Your task to perform on an android device: open app "Microsoft Excel" Image 0: 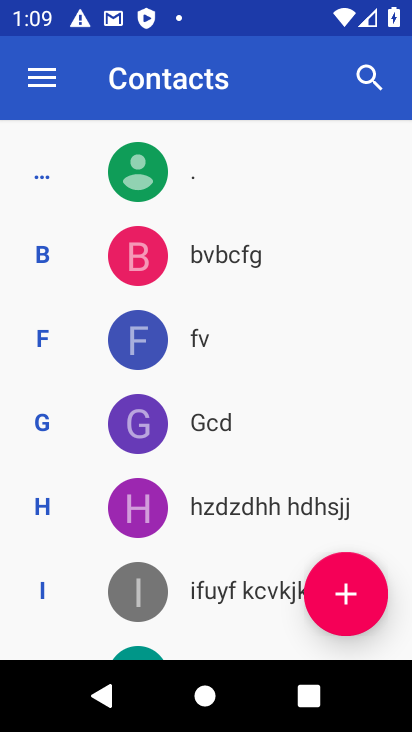
Step 0: press home button
Your task to perform on an android device: open app "Microsoft Excel" Image 1: 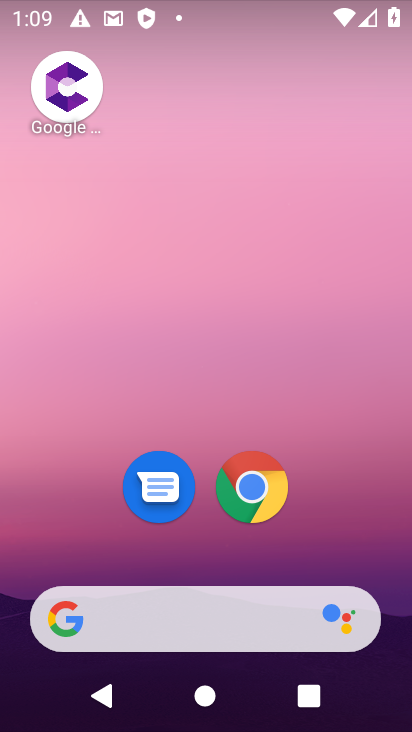
Step 1: drag from (212, 545) to (203, 58)
Your task to perform on an android device: open app "Microsoft Excel" Image 2: 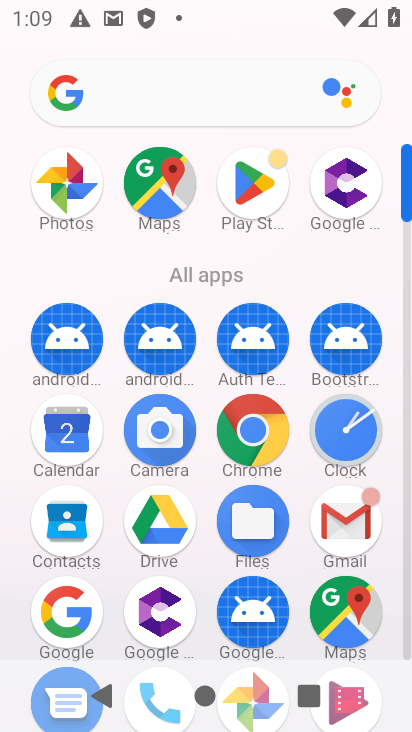
Step 2: click (248, 197)
Your task to perform on an android device: open app "Microsoft Excel" Image 3: 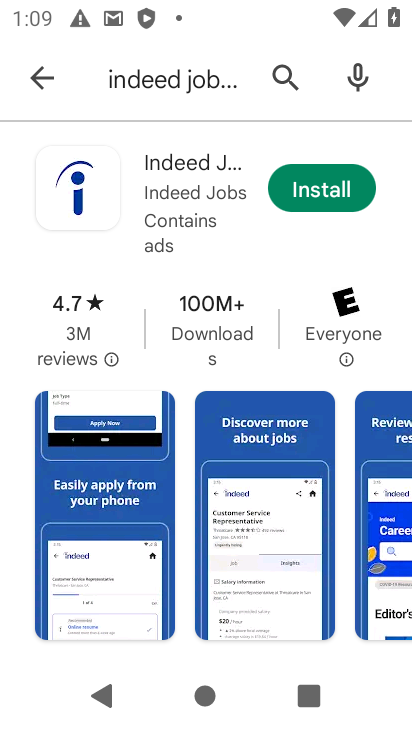
Step 3: click (287, 80)
Your task to perform on an android device: open app "Microsoft Excel" Image 4: 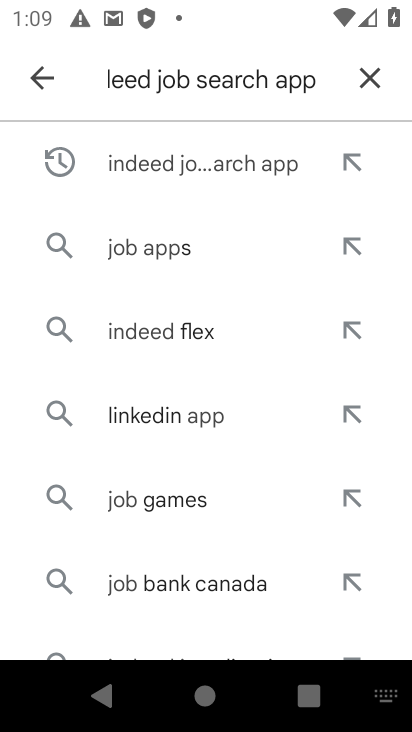
Step 4: click (376, 70)
Your task to perform on an android device: open app "Microsoft Excel" Image 5: 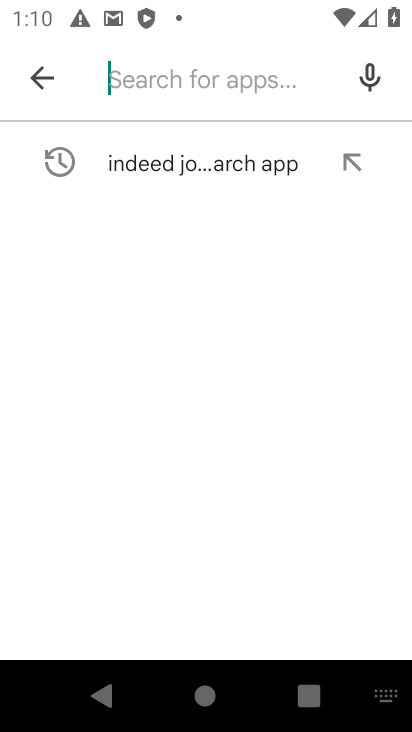
Step 5: type "Microsoft Excel"
Your task to perform on an android device: open app "Microsoft Excel" Image 6: 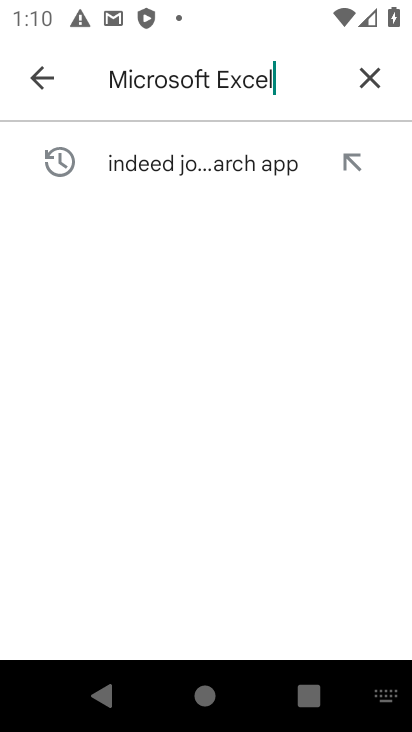
Step 6: type ""
Your task to perform on an android device: open app "Microsoft Excel" Image 7: 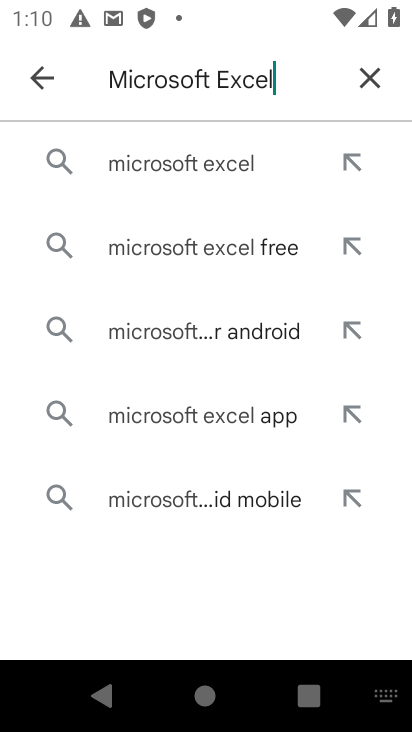
Step 7: click (185, 153)
Your task to perform on an android device: open app "Microsoft Excel" Image 8: 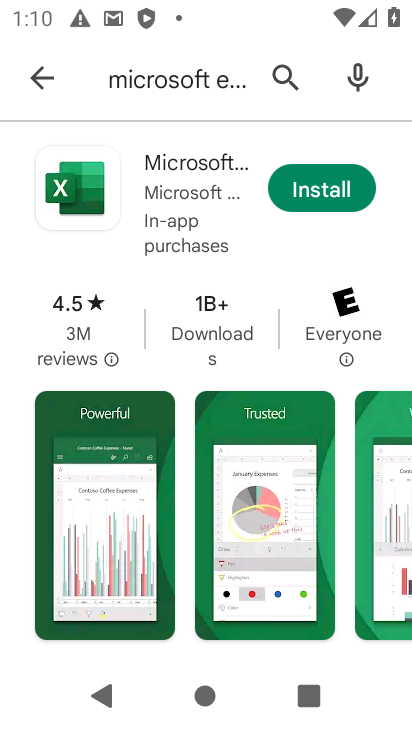
Step 8: task complete